Your task to perform on an android device: View the shopping cart on target. Image 0: 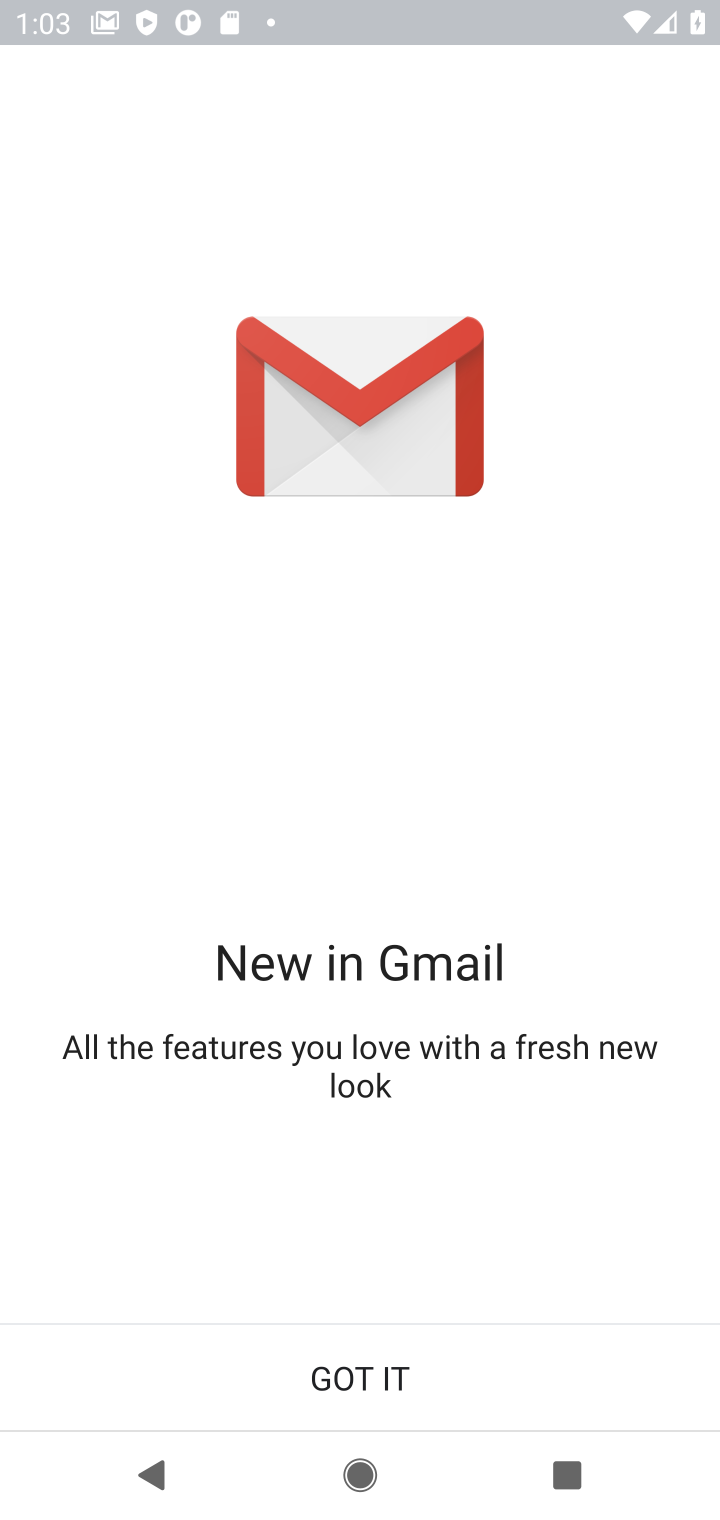
Step 0: press home button
Your task to perform on an android device: View the shopping cart on target. Image 1: 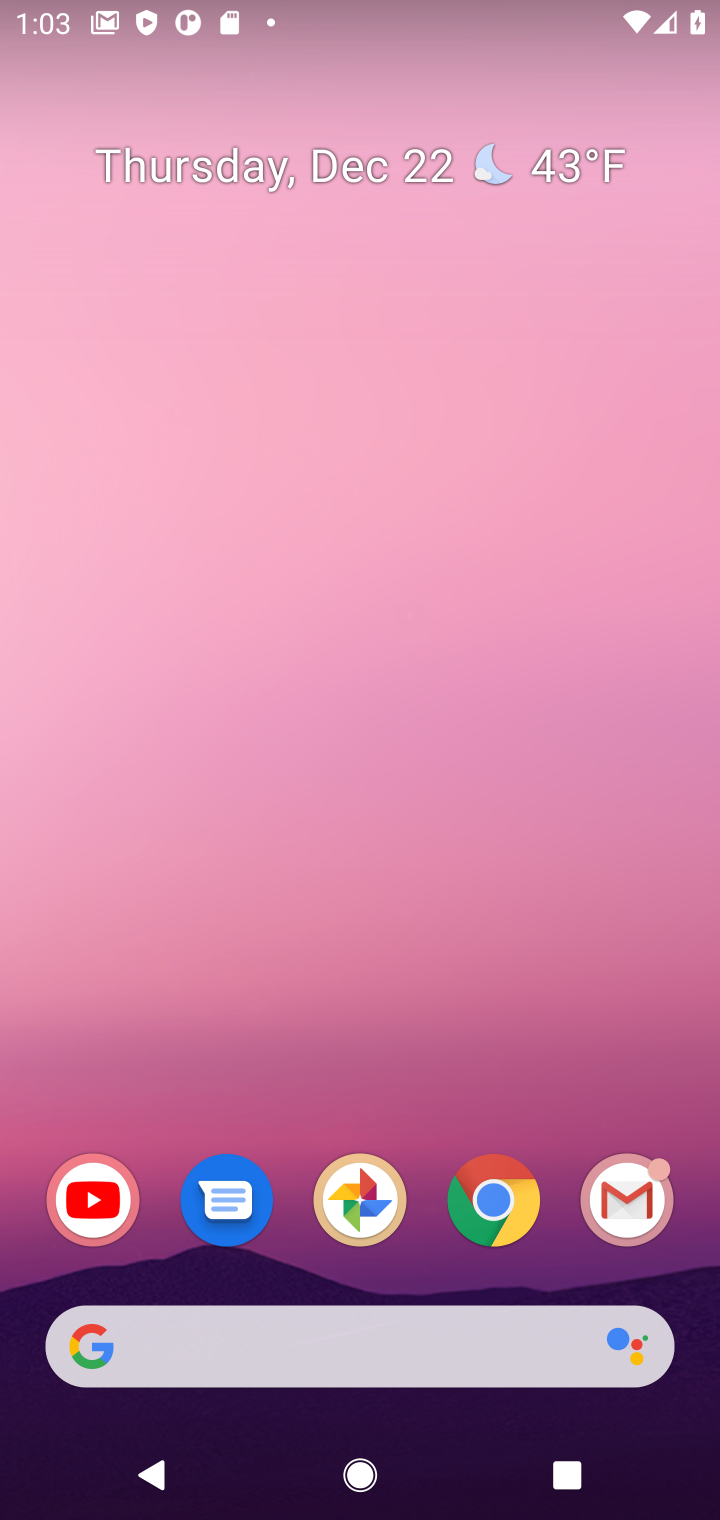
Step 1: click (502, 1212)
Your task to perform on an android device: View the shopping cart on target. Image 2: 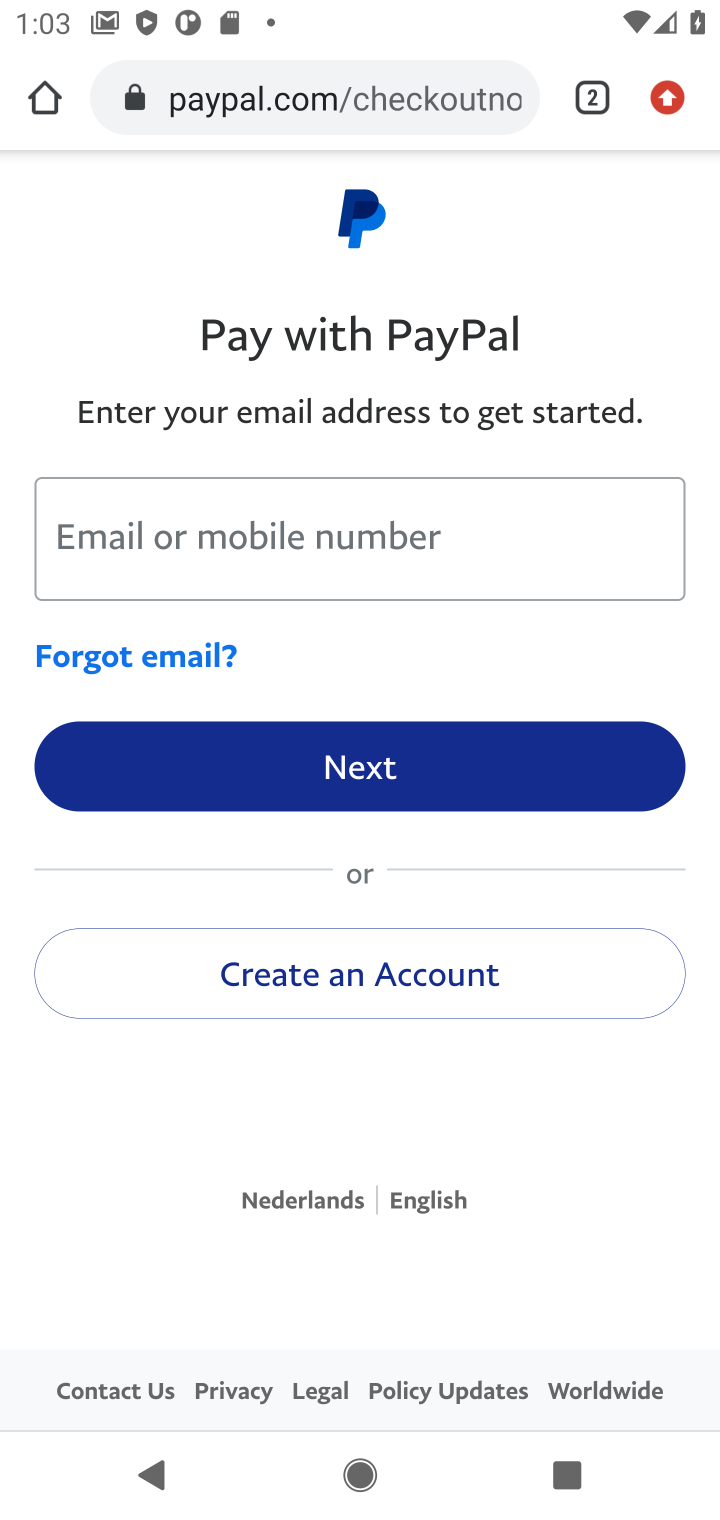
Step 2: click (272, 104)
Your task to perform on an android device: View the shopping cart on target. Image 3: 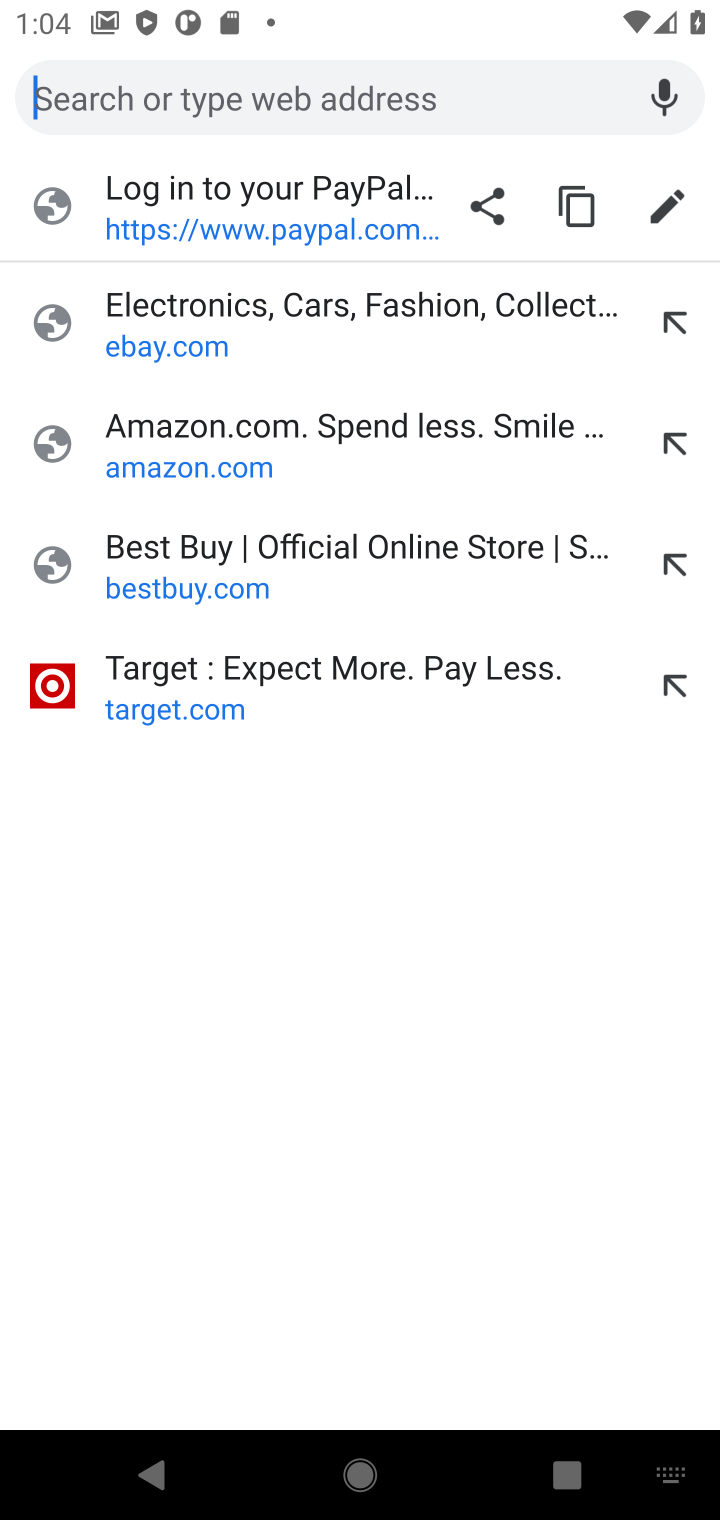
Step 3: click (184, 695)
Your task to perform on an android device: View the shopping cart on target. Image 4: 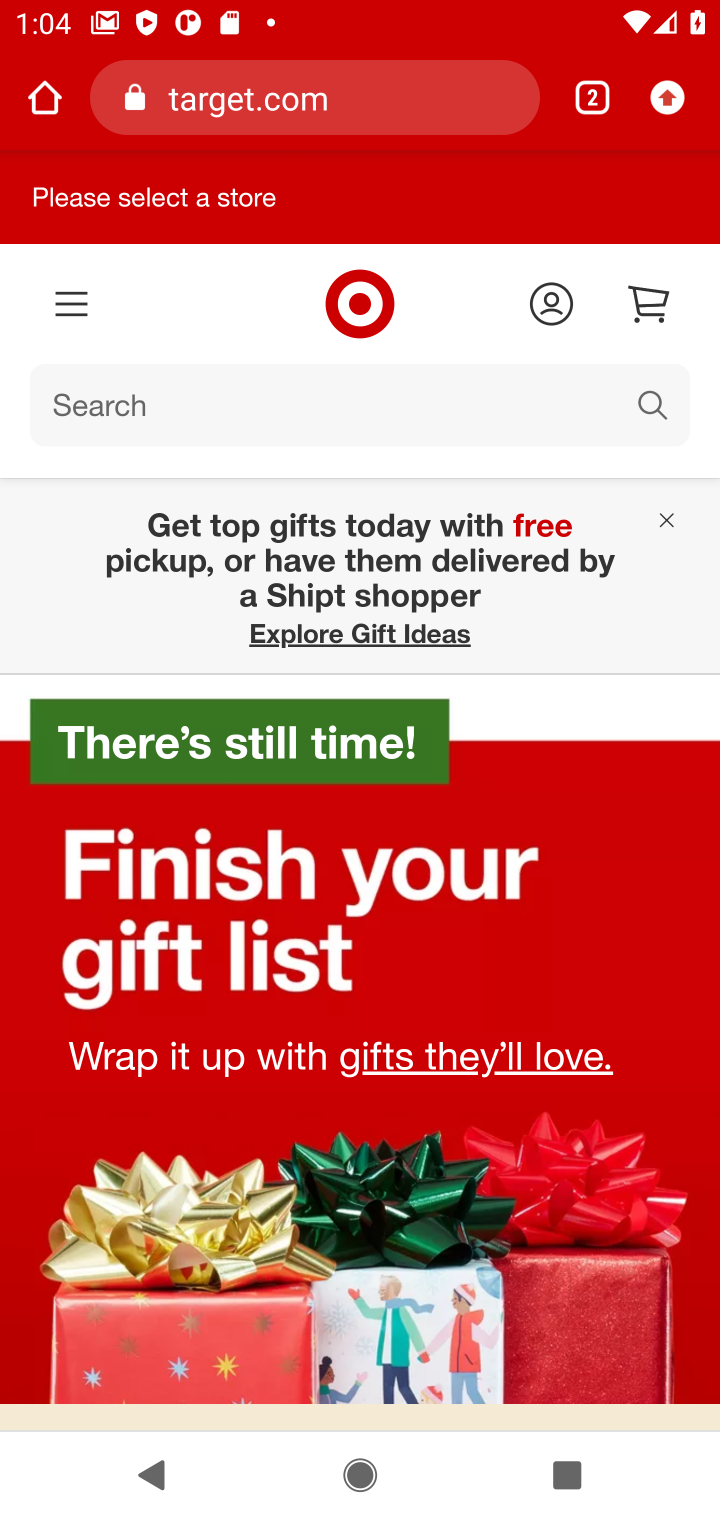
Step 4: click (657, 298)
Your task to perform on an android device: View the shopping cart on target. Image 5: 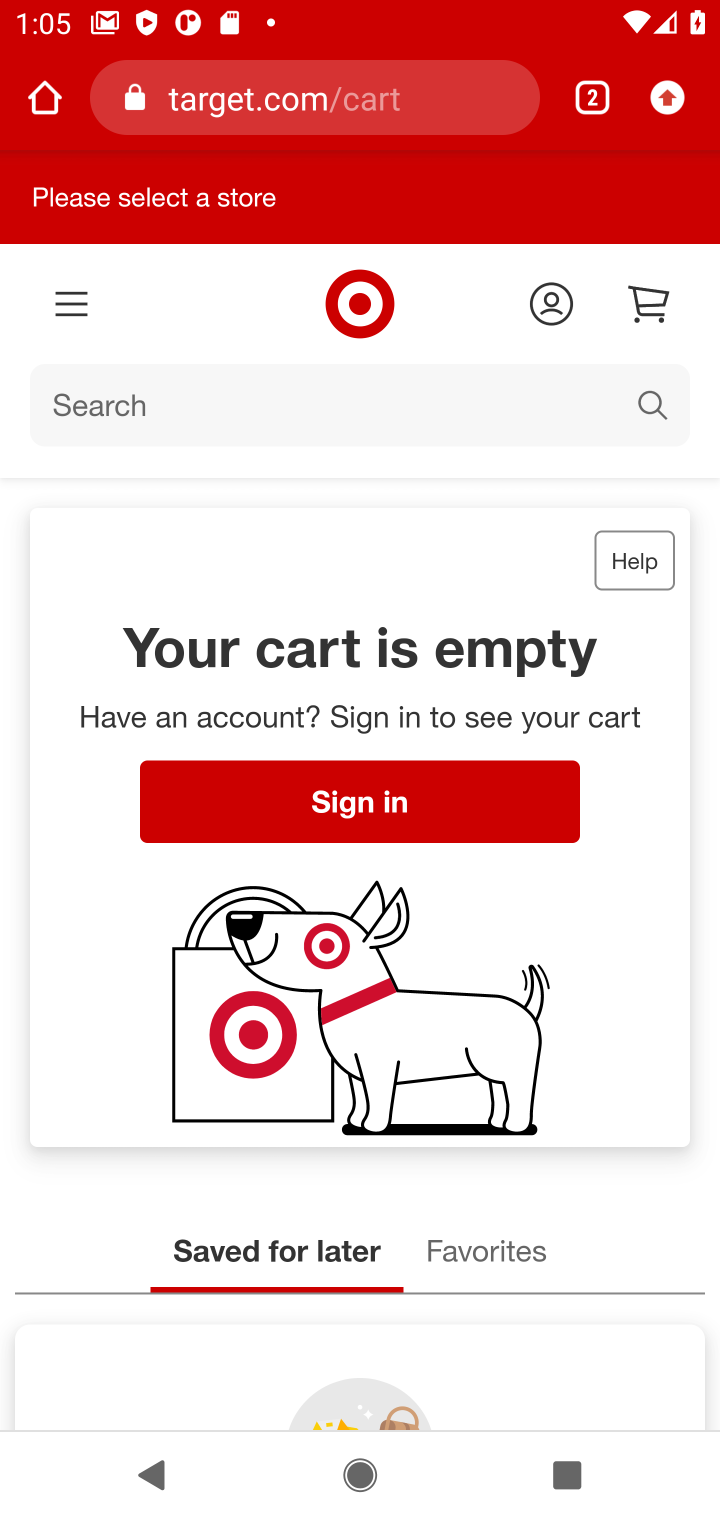
Step 5: task complete